Your task to perform on an android device: snooze an email in the gmail app Image 0: 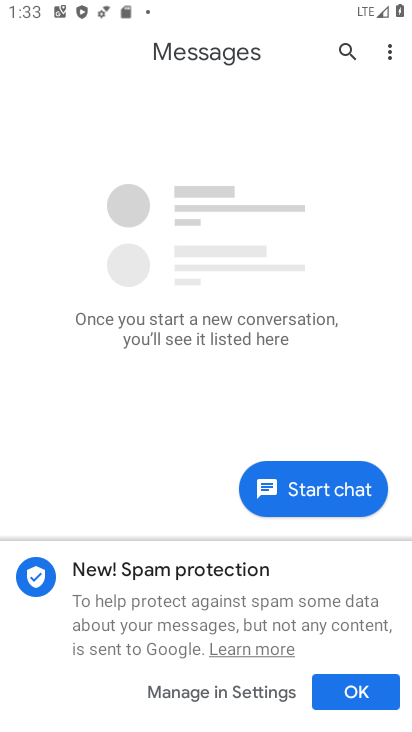
Step 0: press home button
Your task to perform on an android device: snooze an email in the gmail app Image 1: 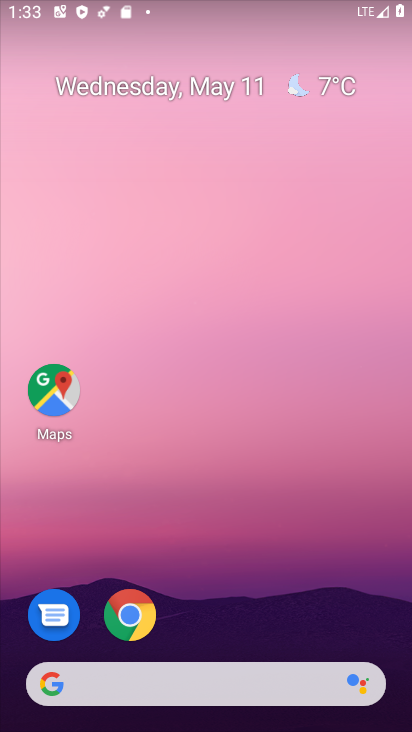
Step 1: drag from (284, 614) to (293, 121)
Your task to perform on an android device: snooze an email in the gmail app Image 2: 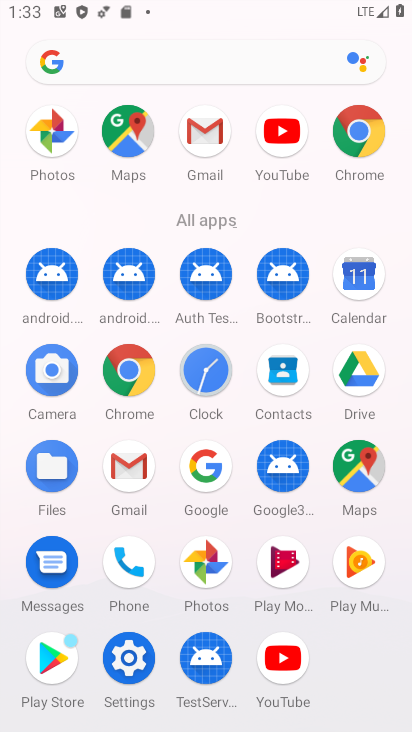
Step 2: click (204, 132)
Your task to perform on an android device: snooze an email in the gmail app Image 3: 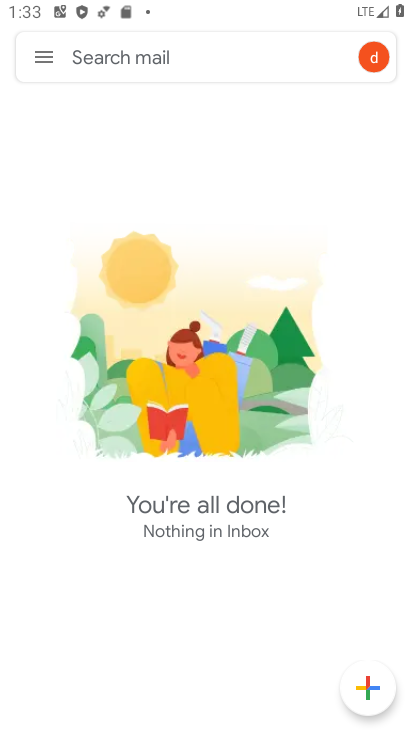
Step 3: click (48, 59)
Your task to perform on an android device: snooze an email in the gmail app Image 4: 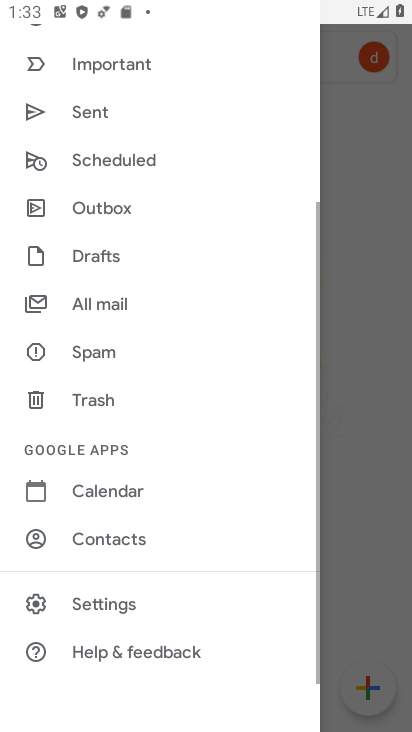
Step 4: drag from (133, 619) to (237, 222)
Your task to perform on an android device: snooze an email in the gmail app Image 5: 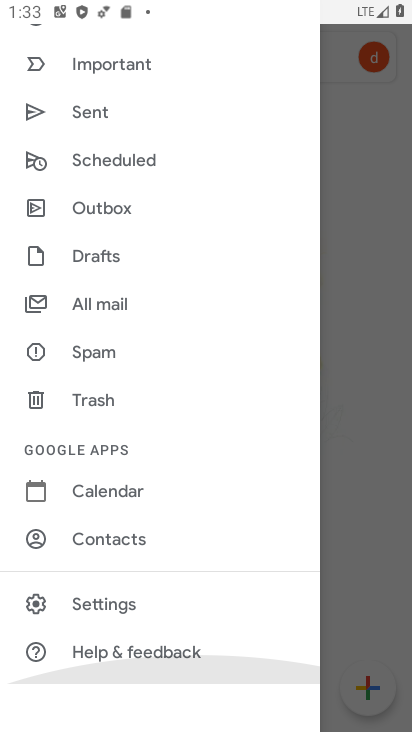
Step 5: drag from (234, 218) to (243, 654)
Your task to perform on an android device: snooze an email in the gmail app Image 6: 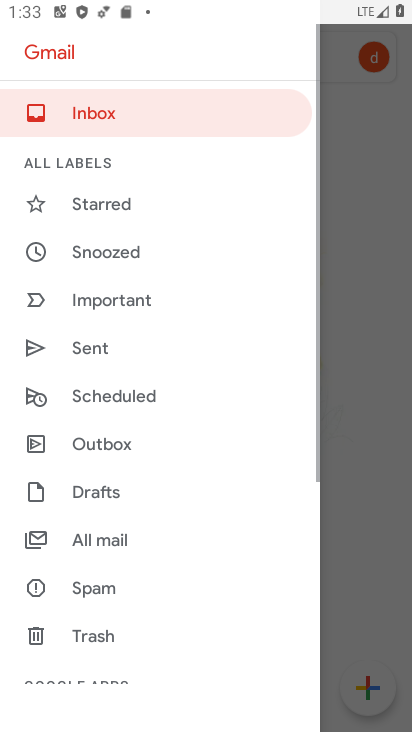
Step 6: drag from (207, 604) to (289, 228)
Your task to perform on an android device: snooze an email in the gmail app Image 7: 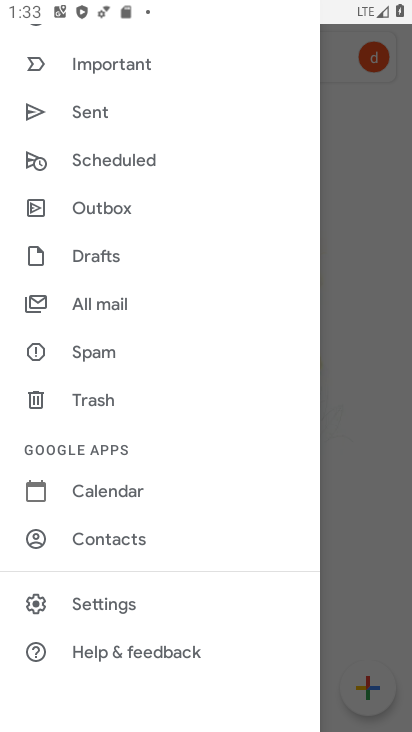
Step 7: click (93, 587)
Your task to perform on an android device: snooze an email in the gmail app Image 8: 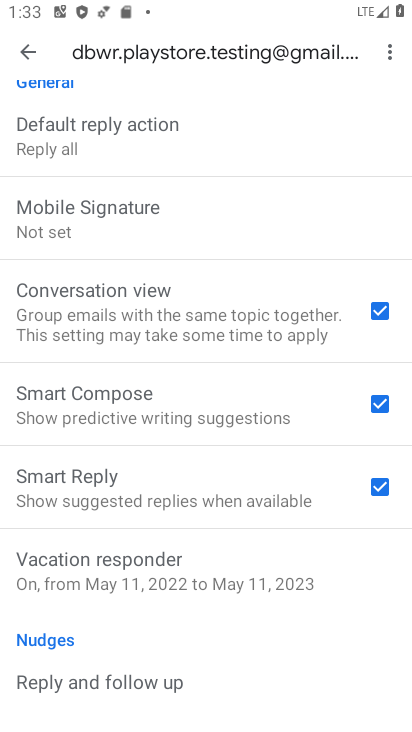
Step 8: drag from (209, 489) to (242, 405)
Your task to perform on an android device: snooze an email in the gmail app Image 9: 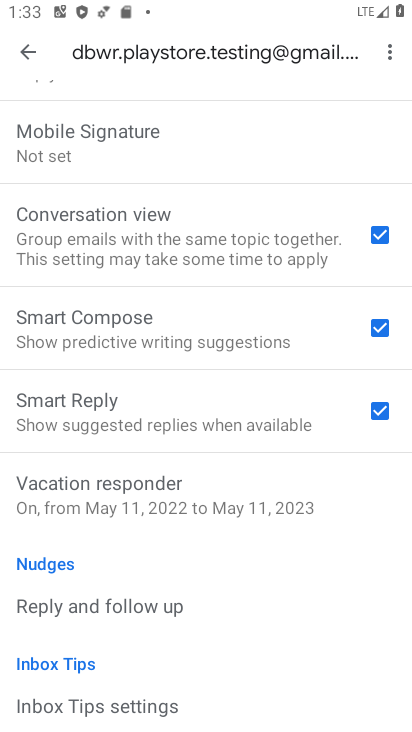
Step 9: click (28, 47)
Your task to perform on an android device: snooze an email in the gmail app Image 10: 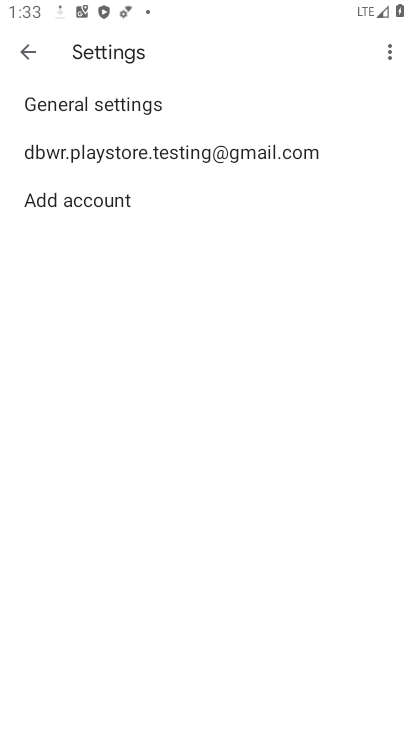
Step 10: click (33, 50)
Your task to perform on an android device: snooze an email in the gmail app Image 11: 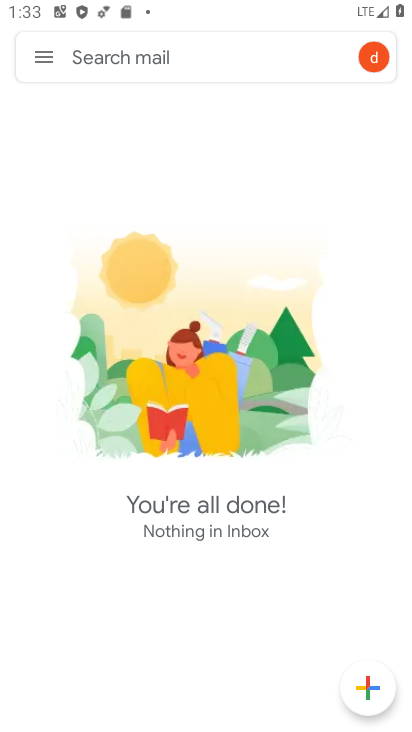
Step 11: click (37, 54)
Your task to perform on an android device: snooze an email in the gmail app Image 12: 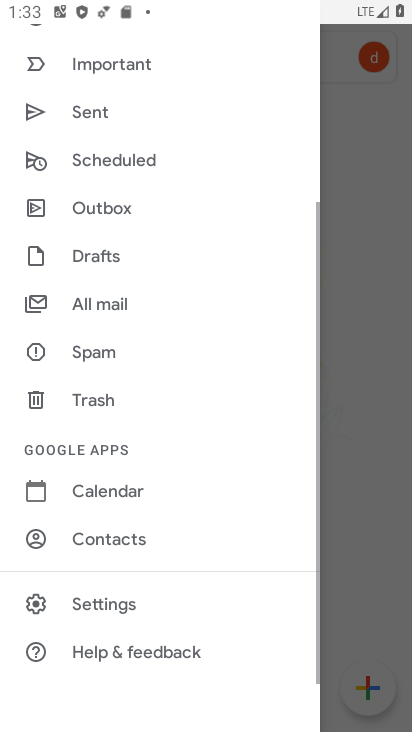
Step 12: drag from (179, 206) to (204, 537)
Your task to perform on an android device: snooze an email in the gmail app Image 13: 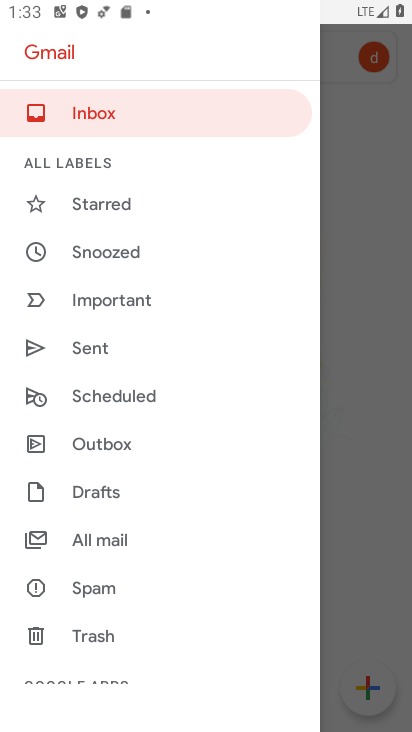
Step 13: drag from (185, 531) to (208, 622)
Your task to perform on an android device: snooze an email in the gmail app Image 14: 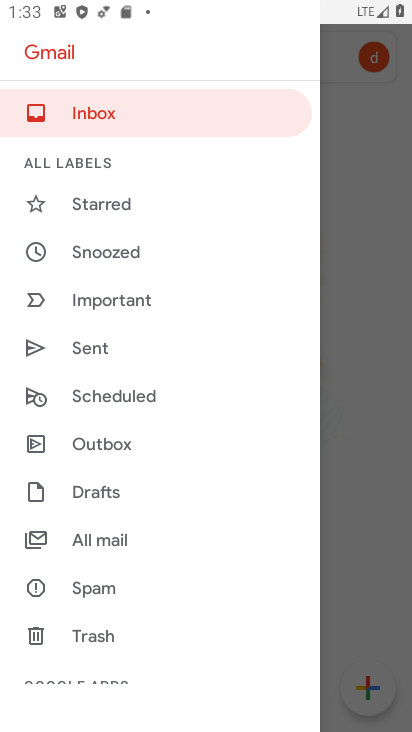
Step 14: click (107, 540)
Your task to perform on an android device: snooze an email in the gmail app Image 15: 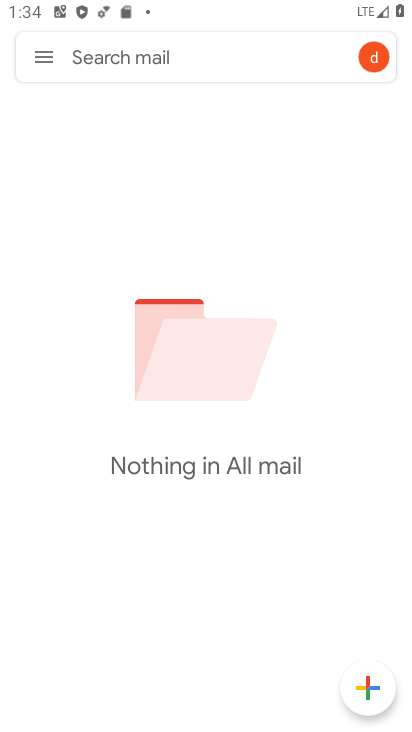
Step 15: task complete